Your task to perform on an android device: change the clock style Image 0: 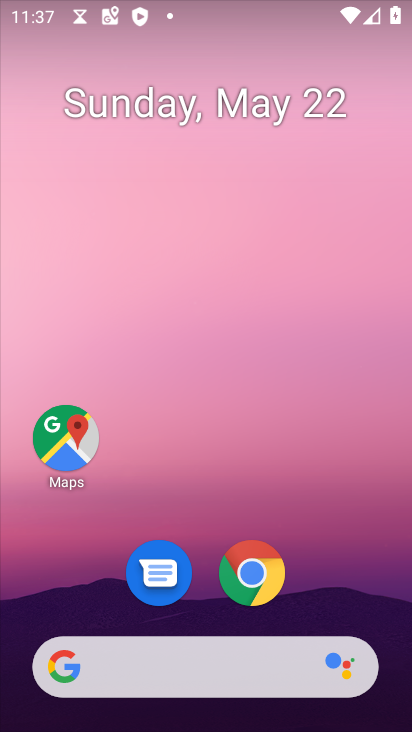
Step 0: press home button
Your task to perform on an android device: change the clock style Image 1: 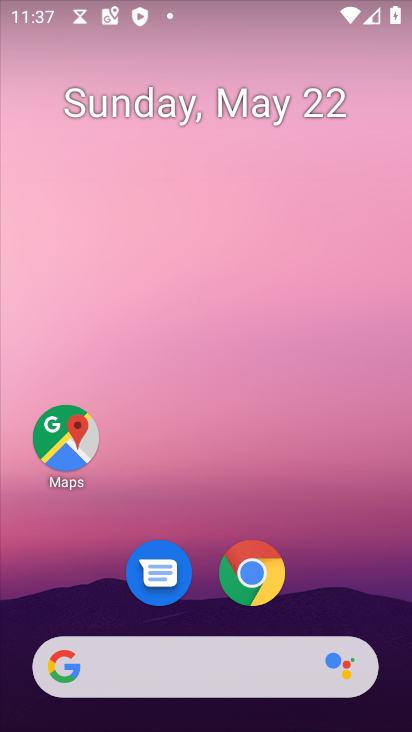
Step 1: drag from (188, 664) to (358, 92)
Your task to perform on an android device: change the clock style Image 2: 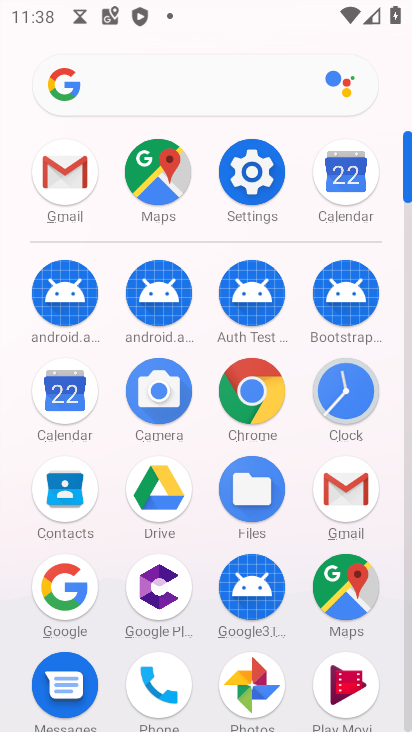
Step 2: click (340, 388)
Your task to perform on an android device: change the clock style Image 3: 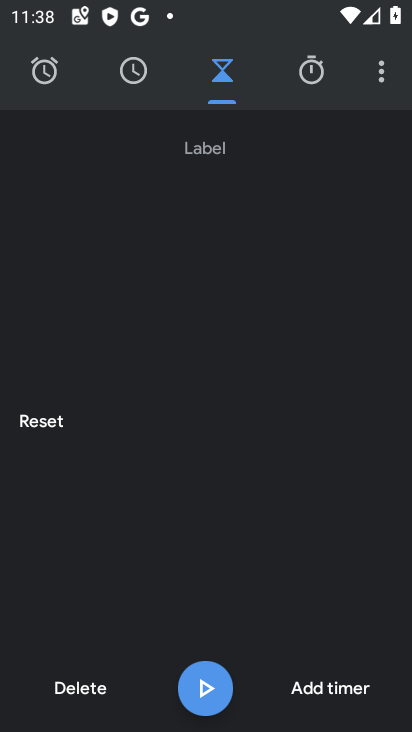
Step 3: click (384, 82)
Your task to perform on an android device: change the clock style Image 4: 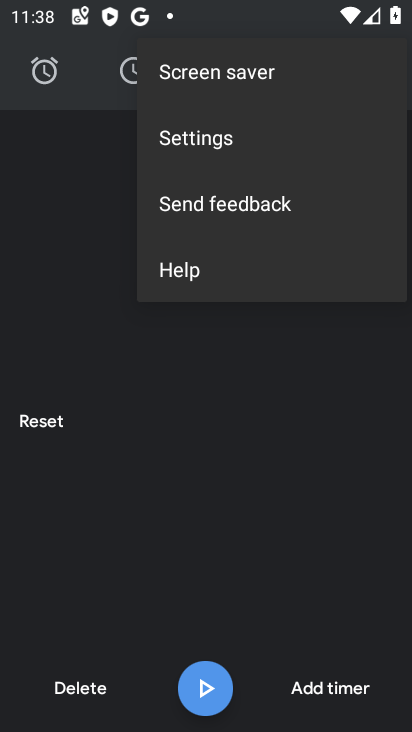
Step 4: click (201, 145)
Your task to perform on an android device: change the clock style Image 5: 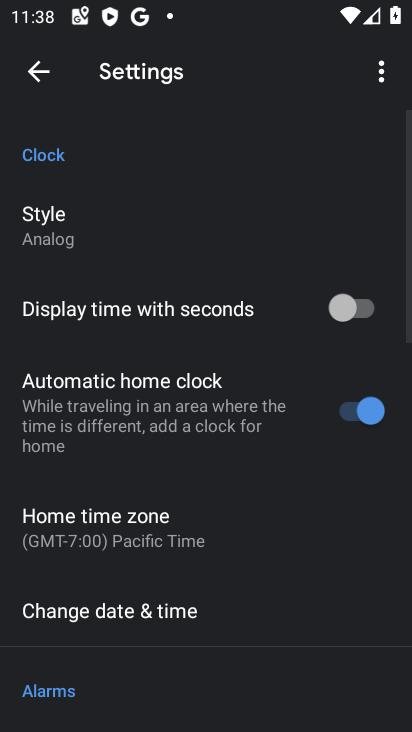
Step 5: click (56, 233)
Your task to perform on an android device: change the clock style Image 6: 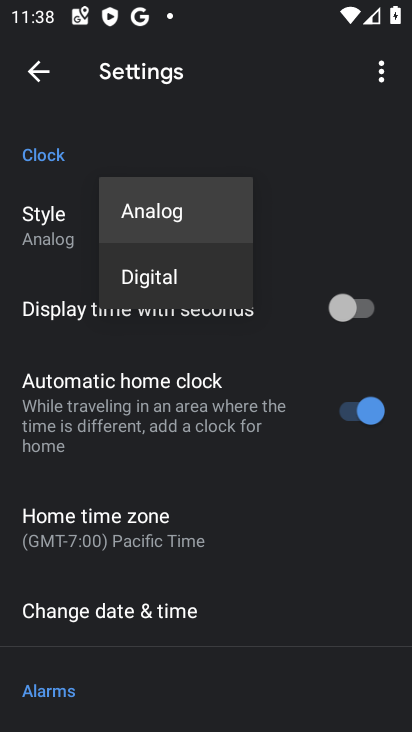
Step 6: click (142, 285)
Your task to perform on an android device: change the clock style Image 7: 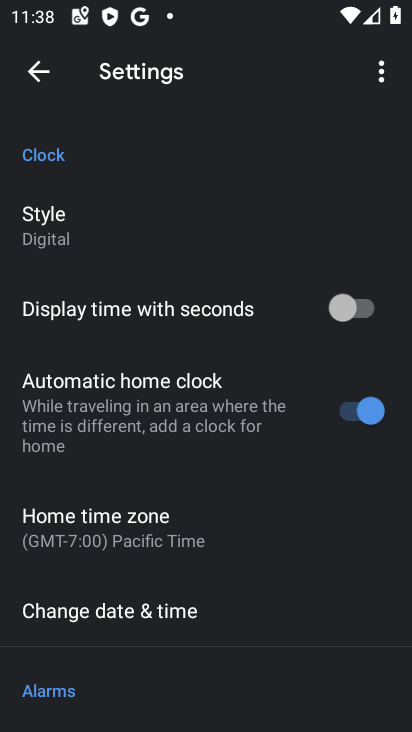
Step 7: task complete